Your task to perform on an android device: open a bookmark in the chrome app Image 0: 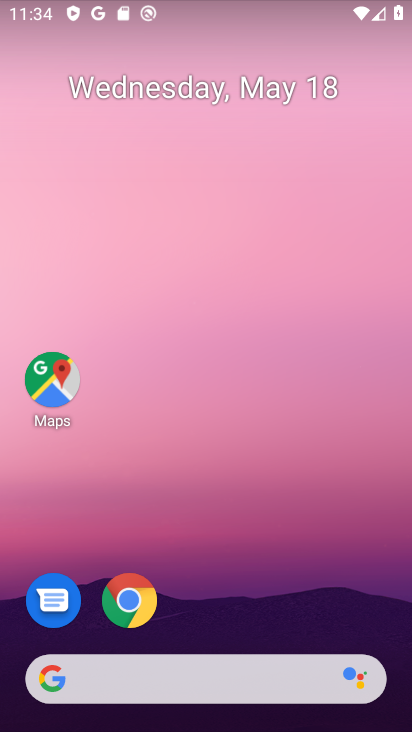
Step 0: drag from (207, 93) to (207, 18)
Your task to perform on an android device: open a bookmark in the chrome app Image 1: 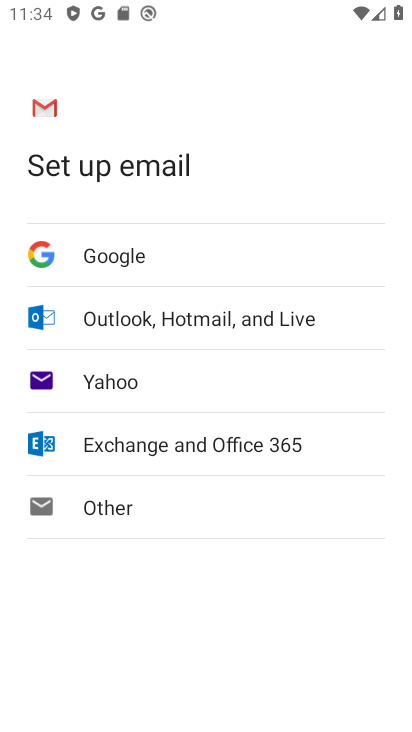
Step 1: drag from (252, 520) to (185, 174)
Your task to perform on an android device: open a bookmark in the chrome app Image 2: 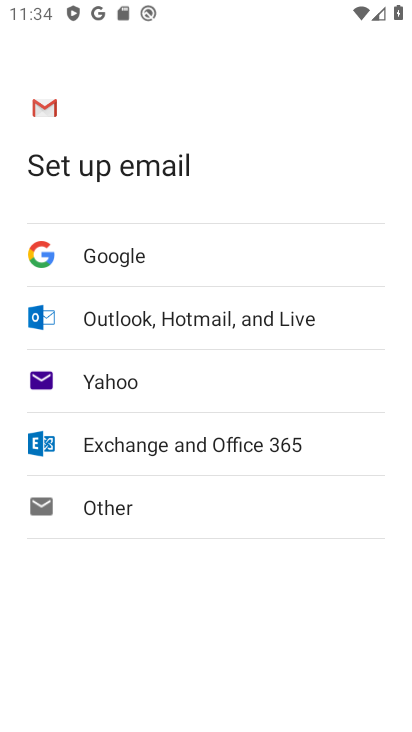
Step 2: drag from (296, 385) to (279, 59)
Your task to perform on an android device: open a bookmark in the chrome app Image 3: 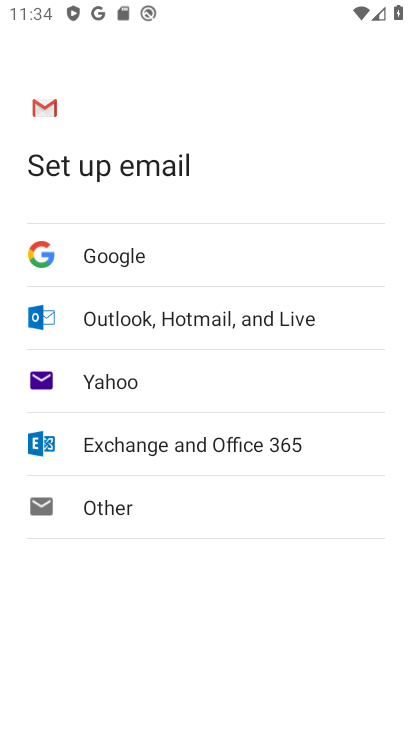
Step 3: press back button
Your task to perform on an android device: open a bookmark in the chrome app Image 4: 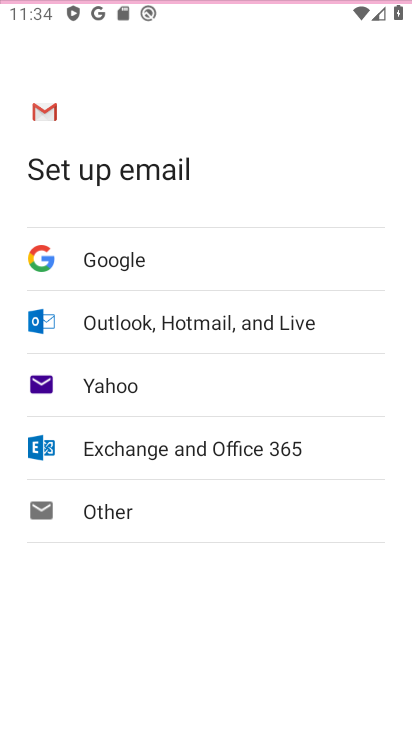
Step 4: press back button
Your task to perform on an android device: open a bookmark in the chrome app Image 5: 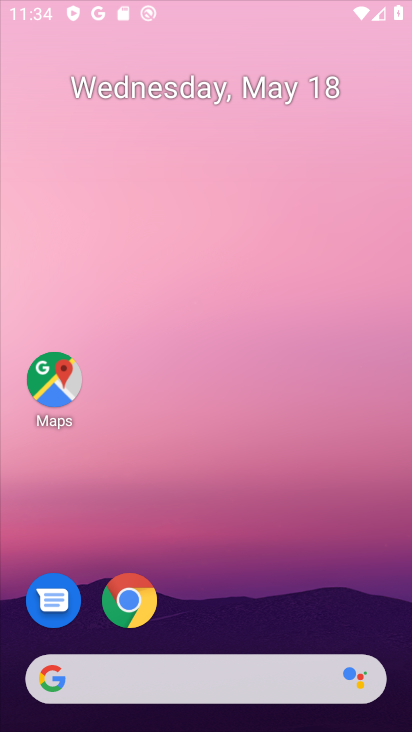
Step 5: press back button
Your task to perform on an android device: open a bookmark in the chrome app Image 6: 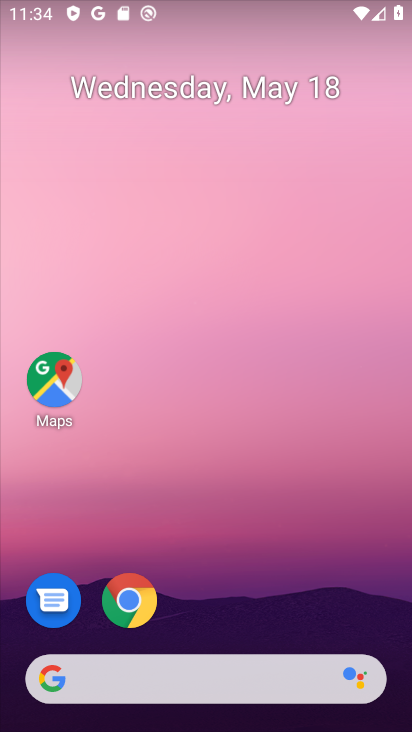
Step 6: drag from (282, 645) to (207, 279)
Your task to perform on an android device: open a bookmark in the chrome app Image 7: 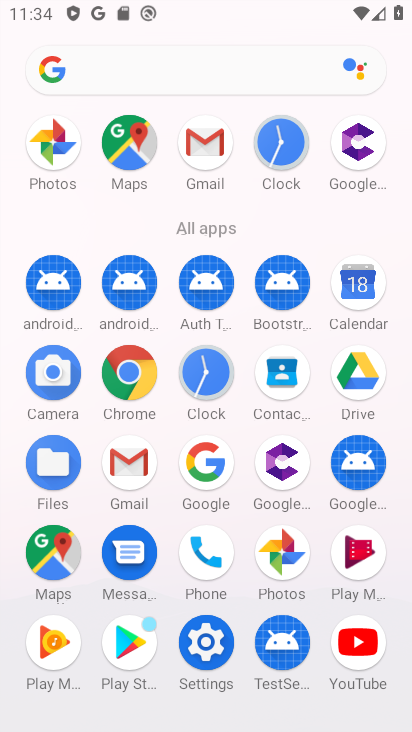
Step 7: drag from (334, 654) to (212, 191)
Your task to perform on an android device: open a bookmark in the chrome app Image 8: 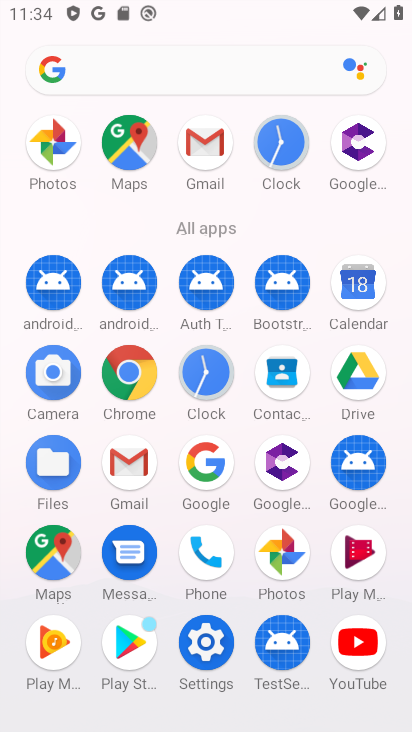
Step 8: click (140, 377)
Your task to perform on an android device: open a bookmark in the chrome app Image 9: 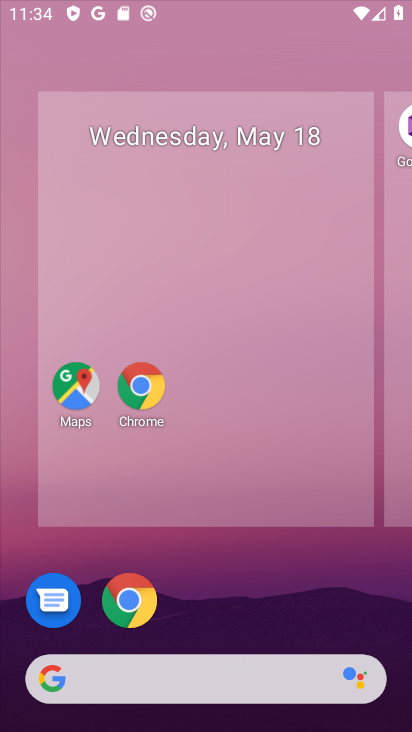
Step 9: click (113, 346)
Your task to perform on an android device: open a bookmark in the chrome app Image 10: 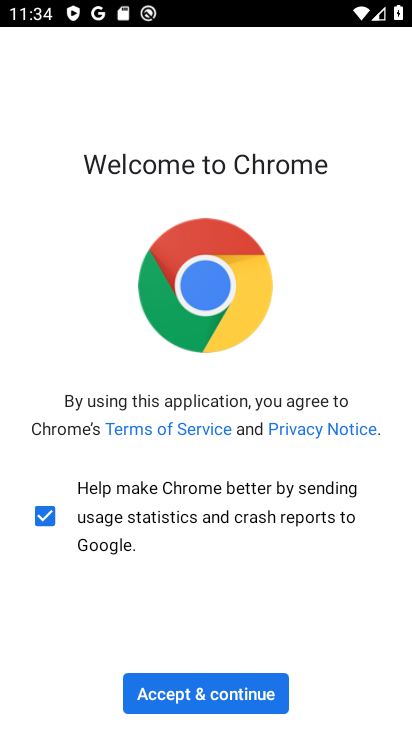
Step 10: click (131, 360)
Your task to perform on an android device: open a bookmark in the chrome app Image 11: 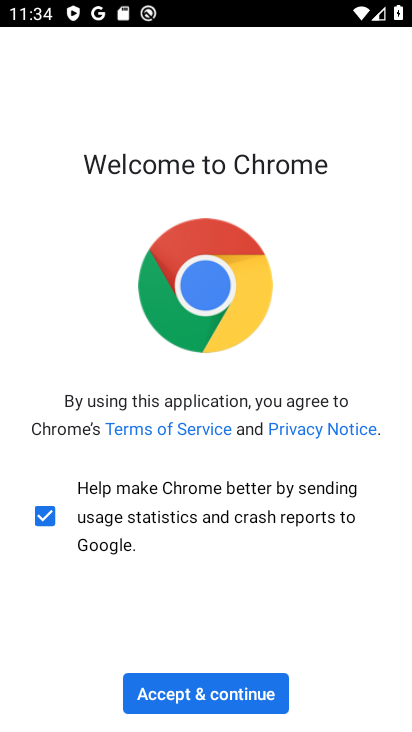
Step 11: click (130, 367)
Your task to perform on an android device: open a bookmark in the chrome app Image 12: 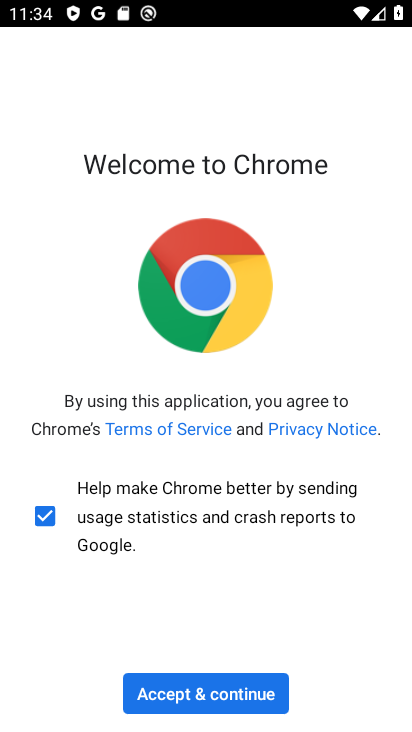
Step 12: click (126, 359)
Your task to perform on an android device: open a bookmark in the chrome app Image 13: 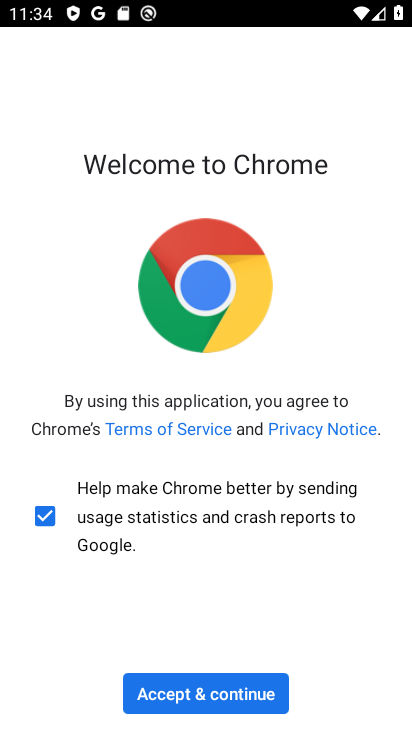
Step 13: drag from (124, 357) to (201, 346)
Your task to perform on an android device: open a bookmark in the chrome app Image 14: 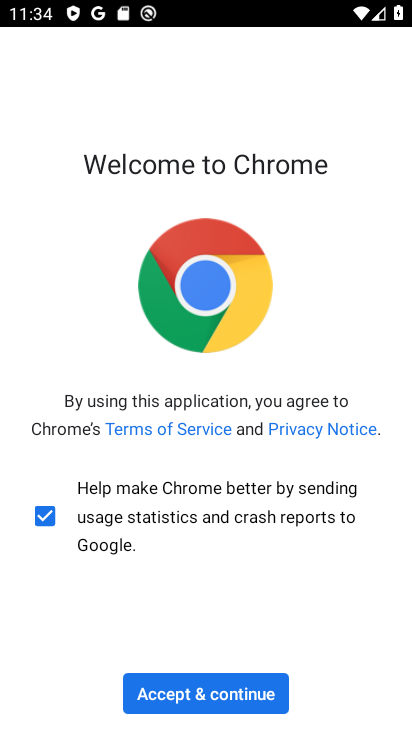
Step 14: click (131, 367)
Your task to perform on an android device: open a bookmark in the chrome app Image 15: 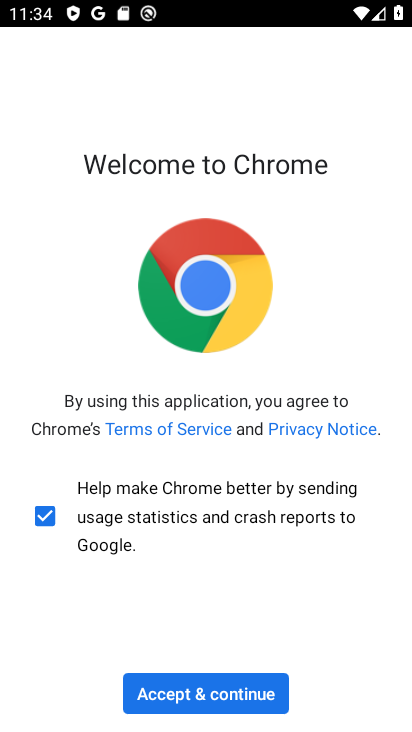
Step 15: click (133, 370)
Your task to perform on an android device: open a bookmark in the chrome app Image 16: 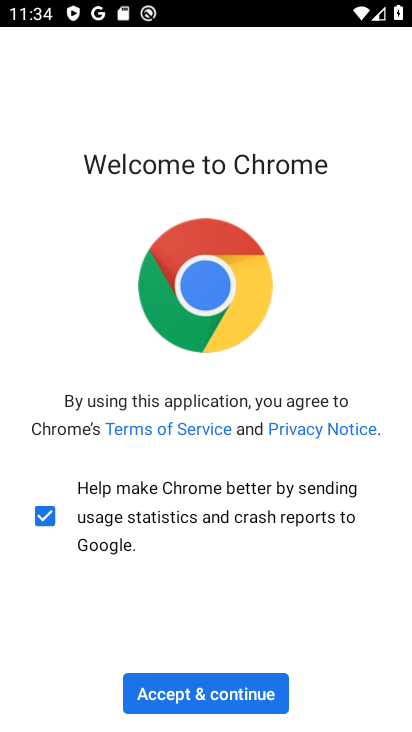
Step 16: click (163, 359)
Your task to perform on an android device: open a bookmark in the chrome app Image 17: 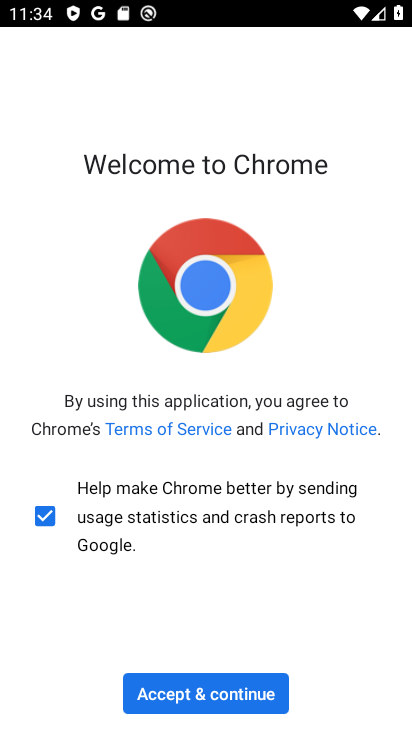
Step 17: click (160, 370)
Your task to perform on an android device: open a bookmark in the chrome app Image 18: 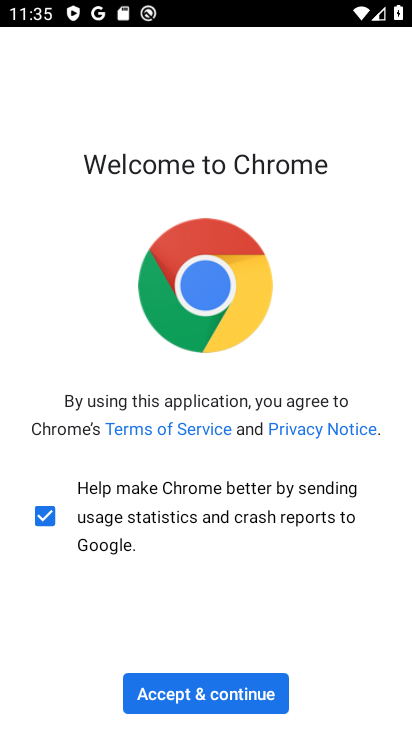
Step 18: click (190, 290)
Your task to perform on an android device: open a bookmark in the chrome app Image 19: 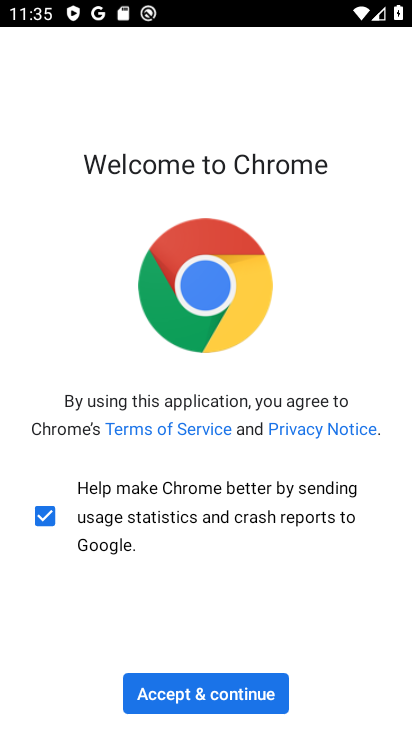
Step 19: click (186, 695)
Your task to perform on an android device: open a bookmark in the chrome app Image 20: 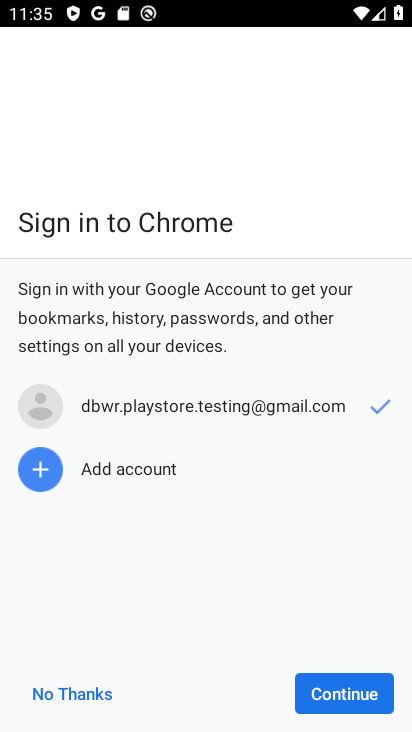
Step 20: click (208, 695)
Your task to perform on an android device: open a bookmark in the chrome app Image 21: 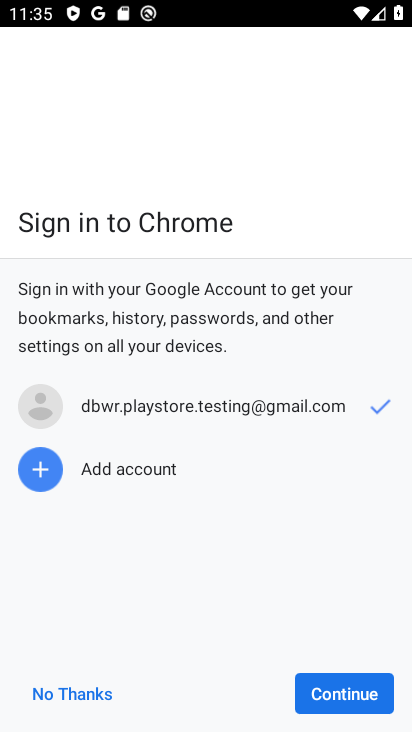
Step 21: click (235, 695)
Your task to perform on an android device: open a bookmark in the chrome app Image 22: 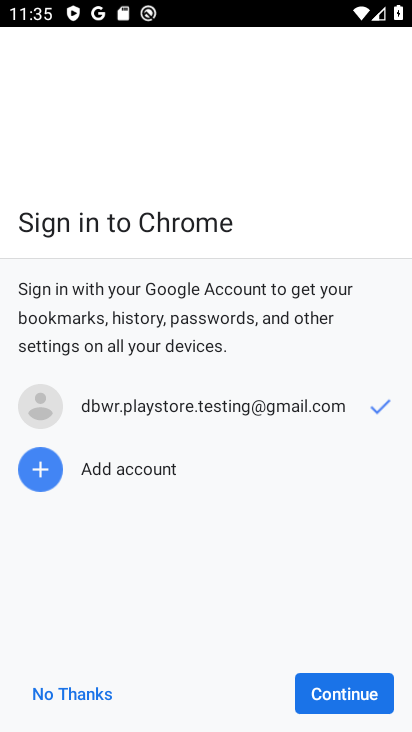
Step 22: click (224, 696)
Your task to perform on an android device: open a bookmark in the chrome app Image 23: 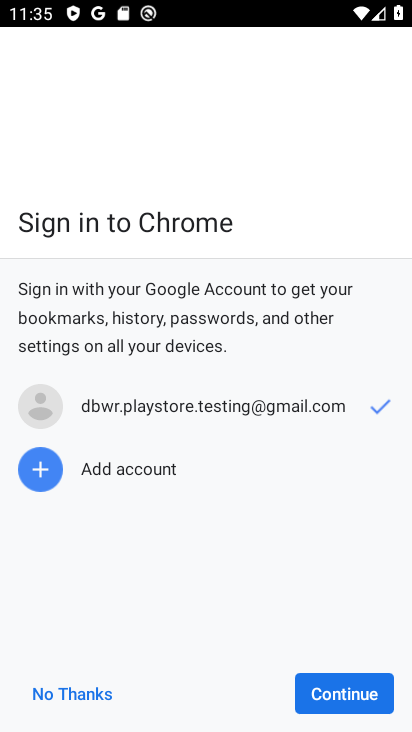
Step 23: click (203, 689)
Your task to perform on an android device: open a bookmark in the chrome app Image 24: 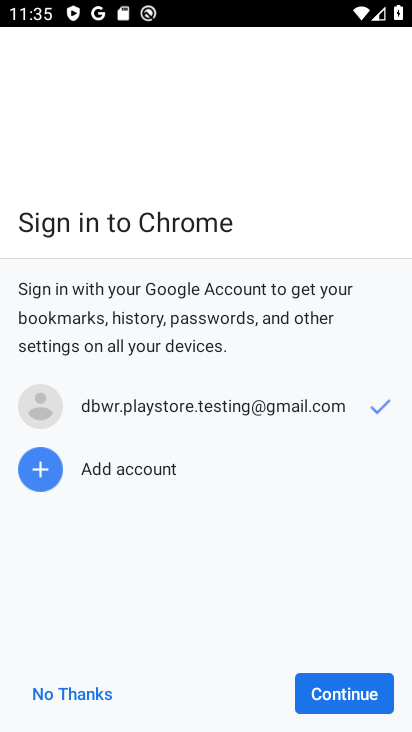
Step 24: click (191, 698)
Your task to perform on an android device: open a bookmark in the chrome app Image 25: 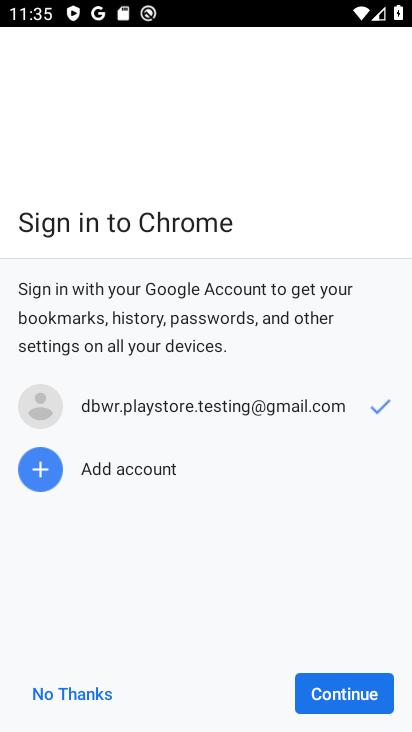
Step 25: drag from (183, 685) to (224, 696)
Your task to perform on an android device: open a bookmark in the chrome app Image 26: 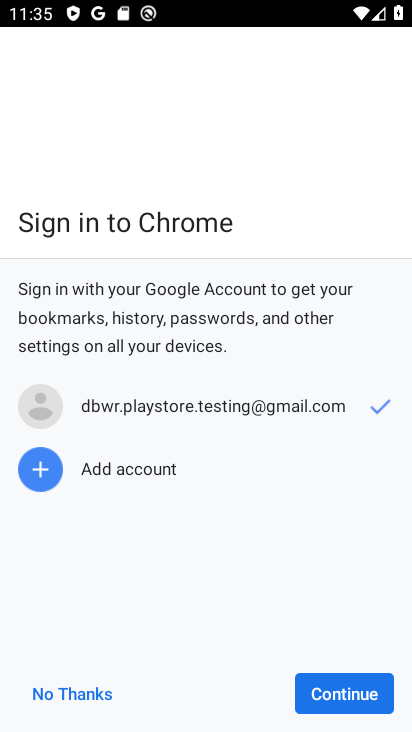
Step 26: click (335, 701)
Your task to perform on an android device: open a bookmark in the chrome app Image 27: 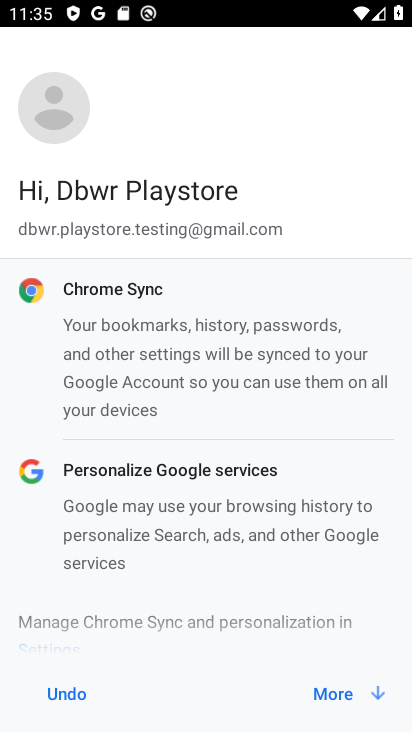
Step 27: click (344, 715)
Your task to perform on an android device: open a bookmark in the chrome app Image 28: 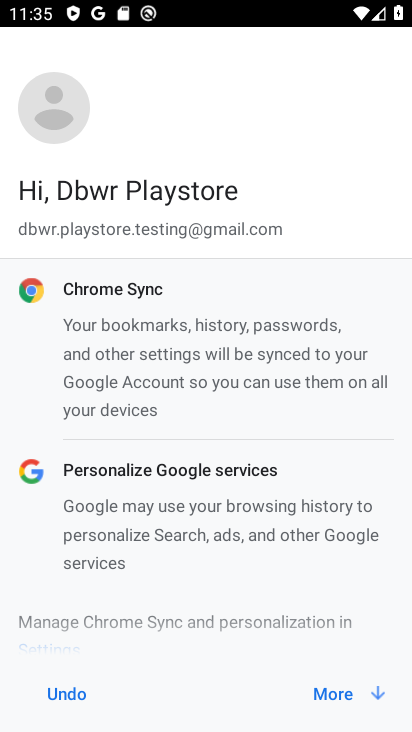
Step 28: click (330, 697)
Your task to perform on an android device: open a bookmark in the chrome app Image 29: 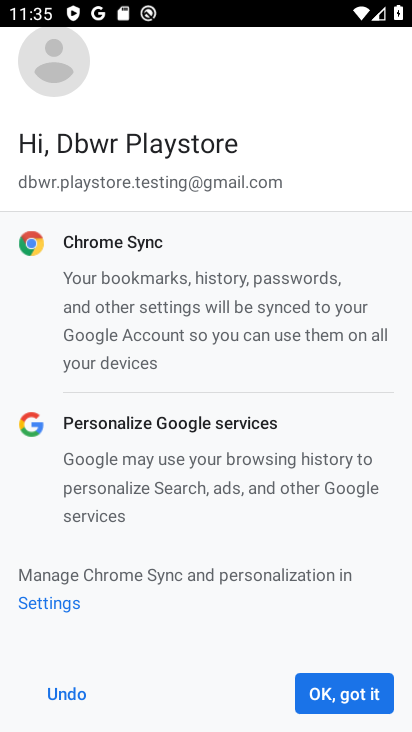
Step 29: click (344, 689)
Your task to perform on an android device: open a bookmark in the chrome app Image 30: 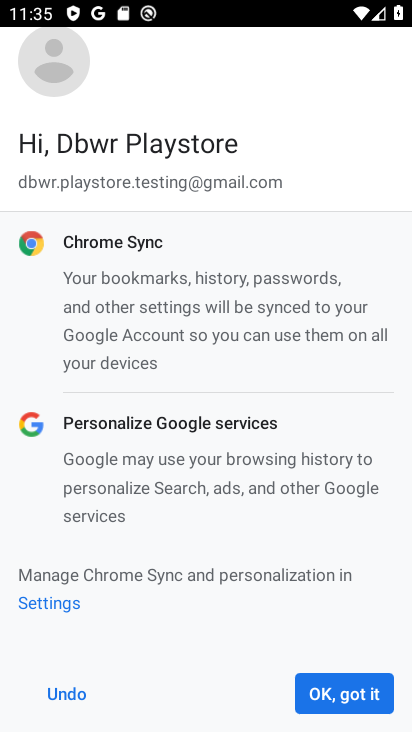
Step 30: click (344, 689)
Your task to perform on an android device: open a bookmark in the chrome app Image 31: 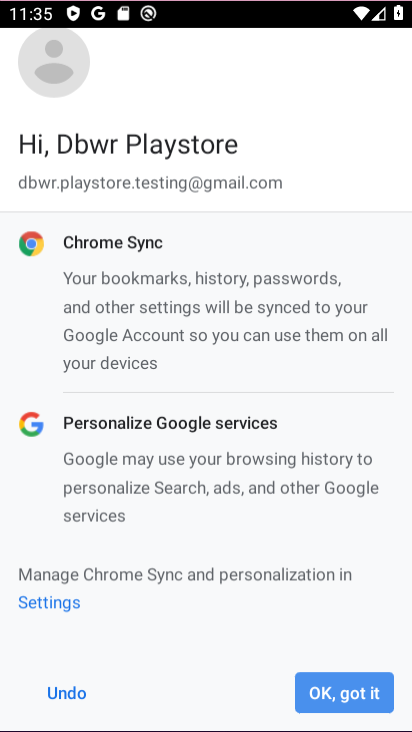
Step 31: click (342, 689)
Your task to perform on an android device: open a bookmark in the chrome app Image 32: 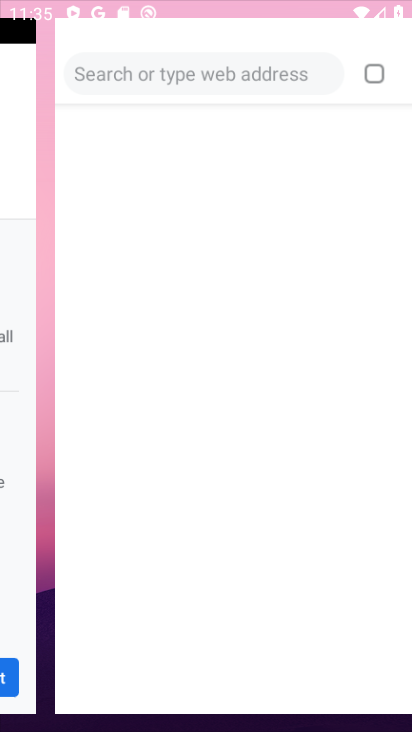
Step 32: click (338, 689)
Your task to perform on an android device: open a bookmark in the chrome app Image 33: 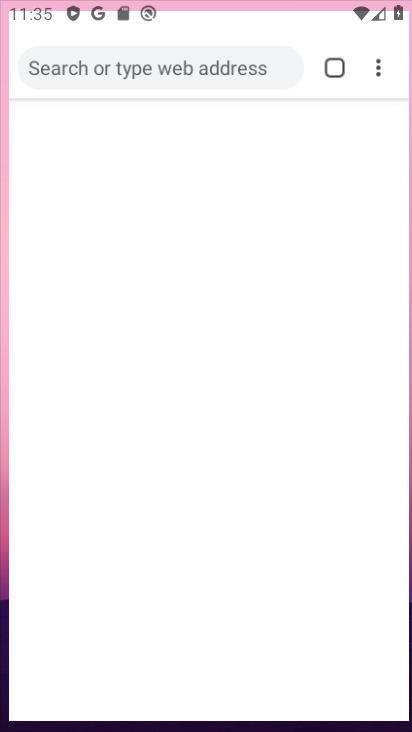
Step 33: click (333, 689)
Your task to perform on an android device: open a bookmark in the chrome app Image 34: 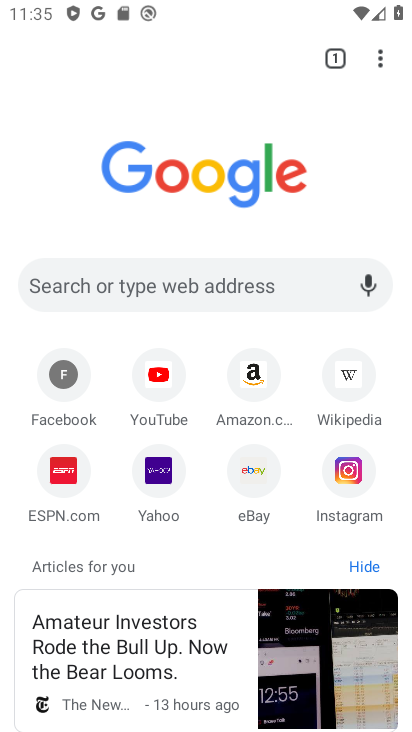
Step 34: drag from (375, 58) to (165, 483)
Your task to perform on an android device: open a bookmark in the chrome app Image 35: 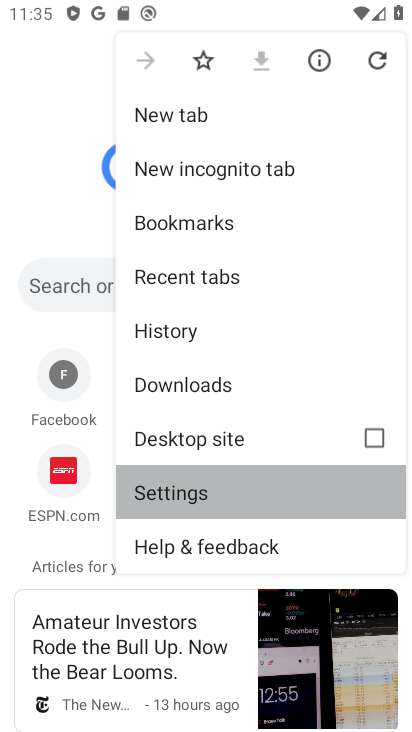
Step 35: click (171, 485)
Your task to perform on an android device: open a bookmark in the chrome app Image 36: 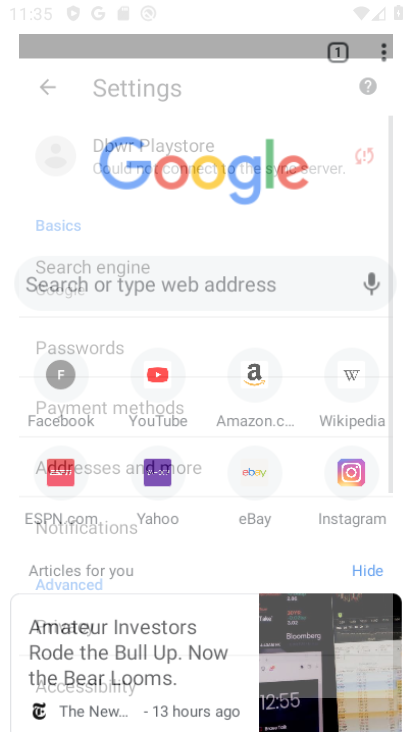
Step 36: click (171, 485)
Your task to perform on an android device: open a bookmark in the chrome app Image 37: 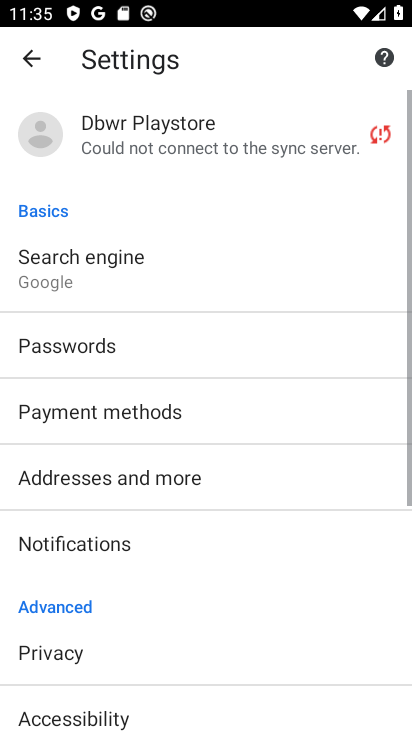
Step 37: click (171, 485)
Your task to perform on an android device: open a bookmark in the chrome app Image 38: 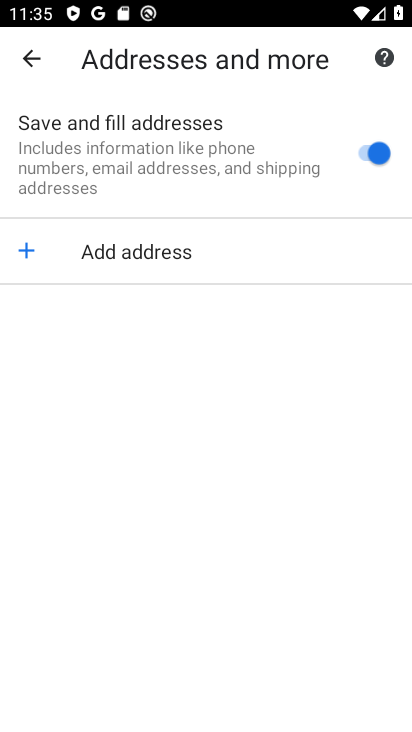
Step 38: click (21, 54)
Your task to perform on an android device: open a bookmark in the chrome app Image 39: 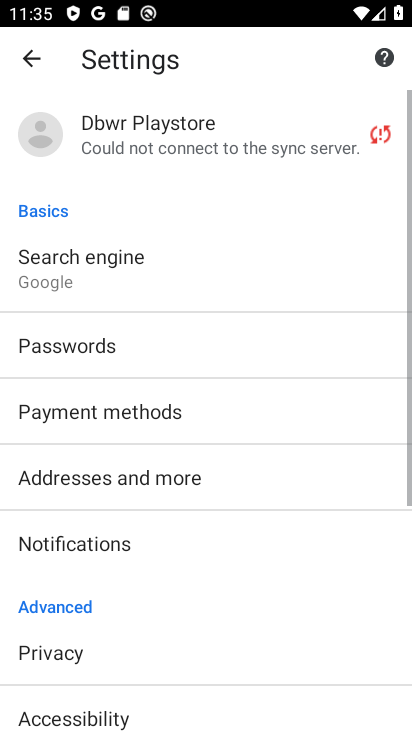
Step 39: drag from (26, 57) to (202, 101)
Your task to perform on an android device: open a bookmark in the chrome app Image 40: 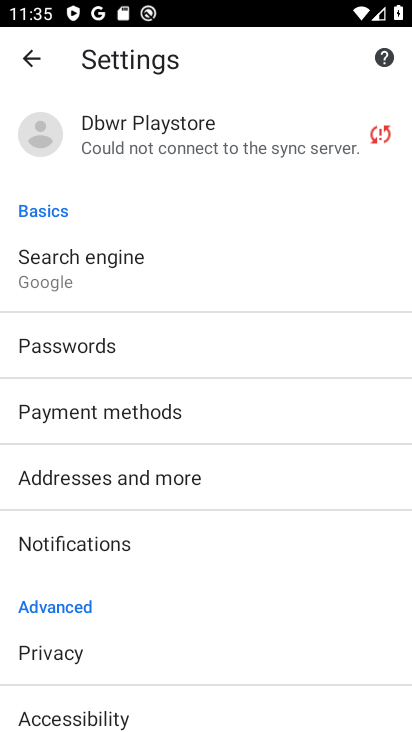
Step 40: drag from (223, 438) to (210, 20)
Your task to perform on an android device: open a bookmark in the chrome app Image 41: 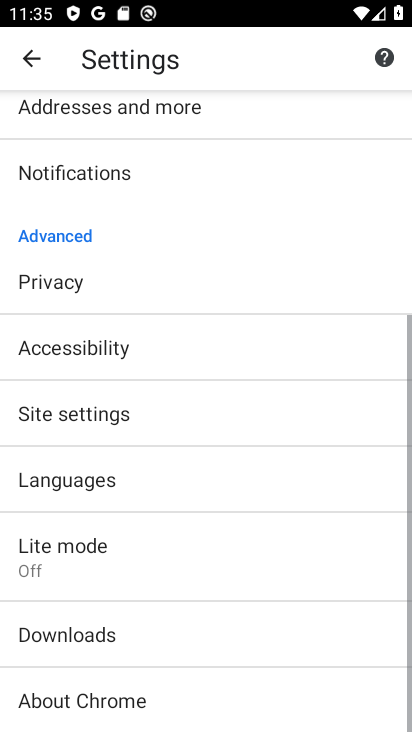
Step 41: drag from (234, 587) to (256, 145)
Your task to perform on an android device: open a bookmark in the chrome app Image 42: 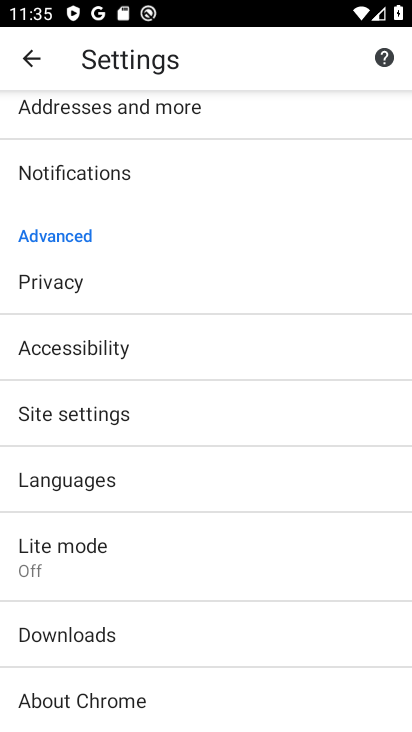
Step 42: drag from (50, 202) to (111, 658)
Your task to perform on an android device: open a bookmark in the chrome app Image 43: 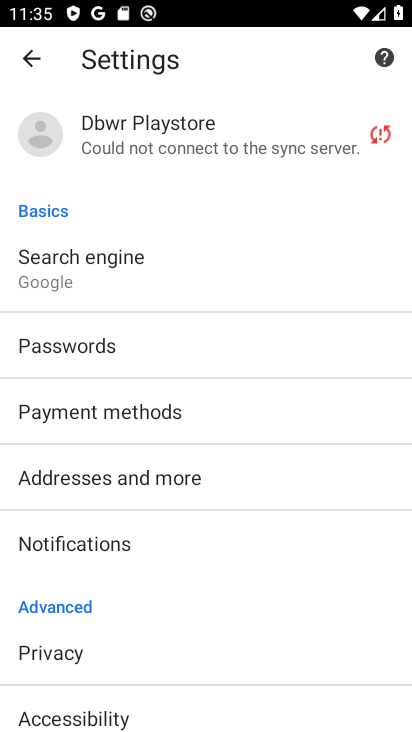
Step 43: drag from (71, 333) to (93, 359)
Your task to perform on an android device: open a bookmark in the chrome app Image 44: 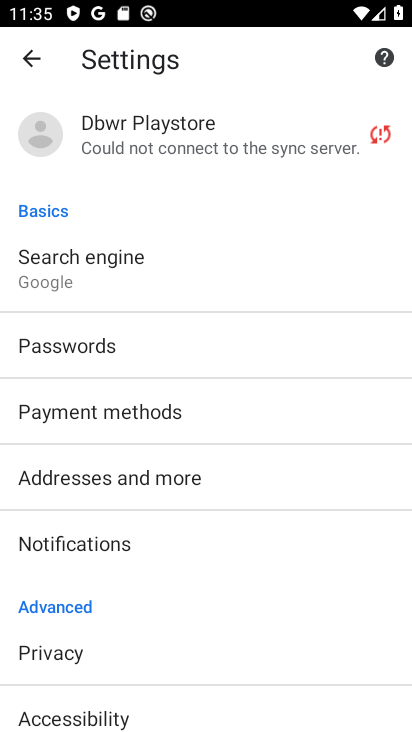
Step 44: click (31, 52)
Your task to perform on an android device: open a bookmark in the chrome app Image 45: 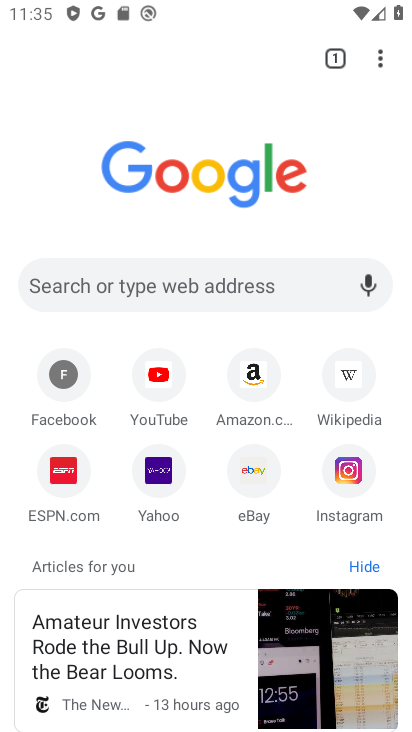
Step 45: click (377, 47)
Your task to perform on an android device: open a bookmark in the chrome app Image 46: 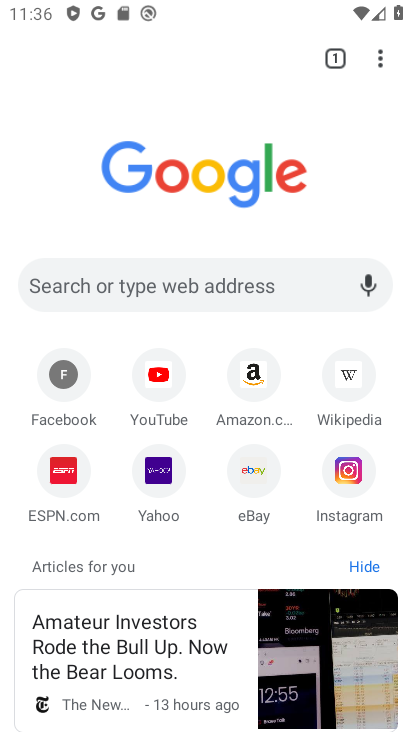
Step 46: drag from (378, 59) to (182, 224)
Your task to perform on an android device: open a bookmark in the chrome app Image 47: 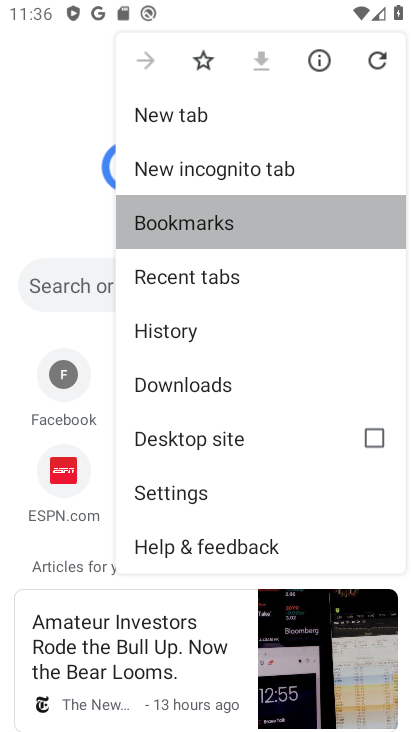
Step 47: click (182, 224)
Your task to perform on an android device: open a bookmark in the chrome app Image 48: 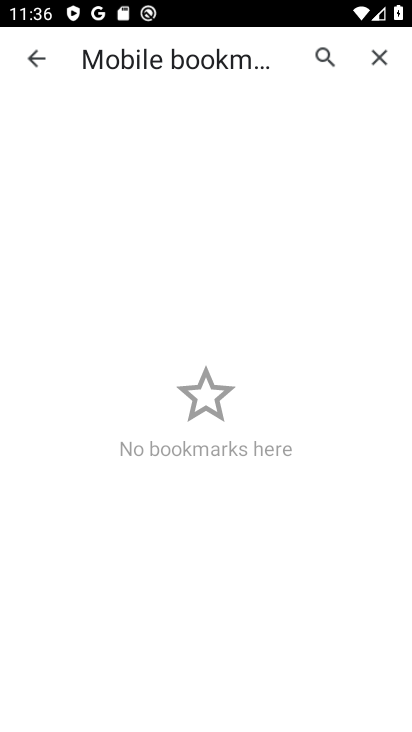
Step 48: task complete